Your task to perform on an android device: toggle pop-ups in chrome Image 0: 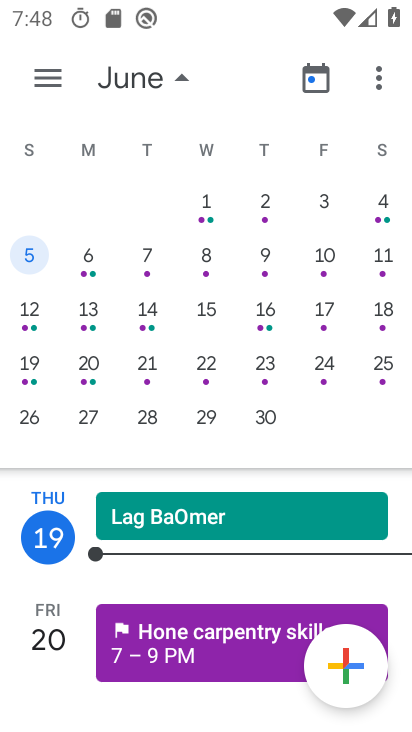
Step 0: press home button
Your task to perform on an android device: toggle pop-ups in chrome Image 1: 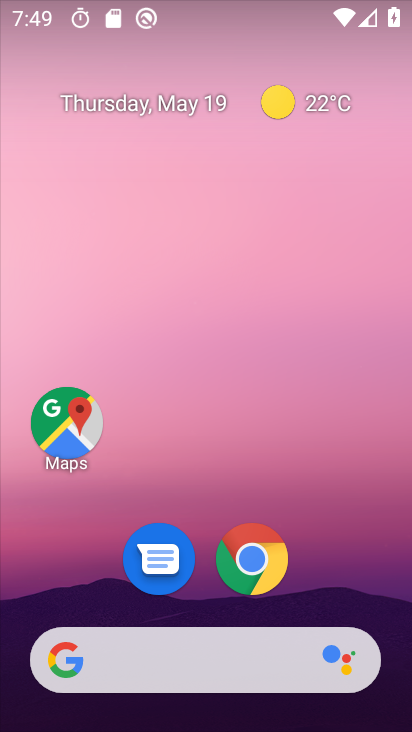
Step 1: click (244, 544)
Your task to perform on an android device: toggle pop-ups in chrome Image 2: 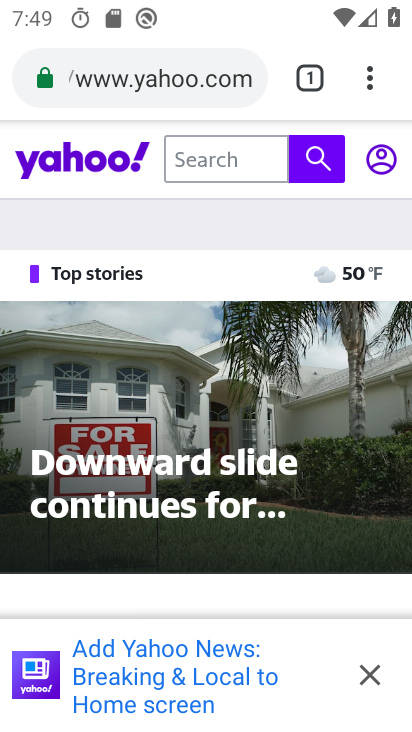
Step 2: click (367, 74)
Your task to perform on an android device: toggle pop-ups in chrome Image 3: 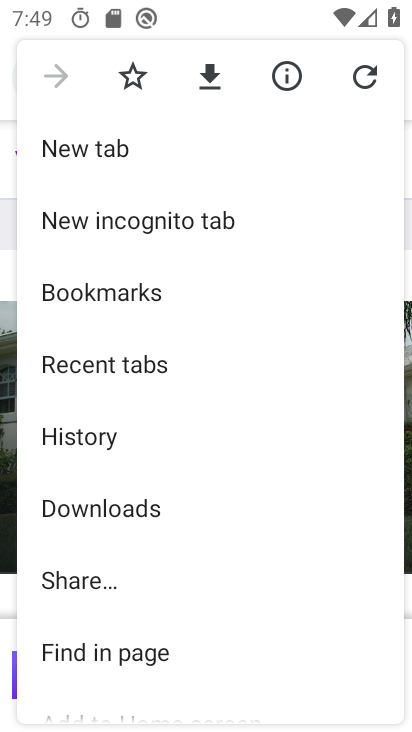
Step 3: drag from (231, 614) to (215, 243)
Your task to perform on an android device: toggle pop-ups in chrome Image 4: 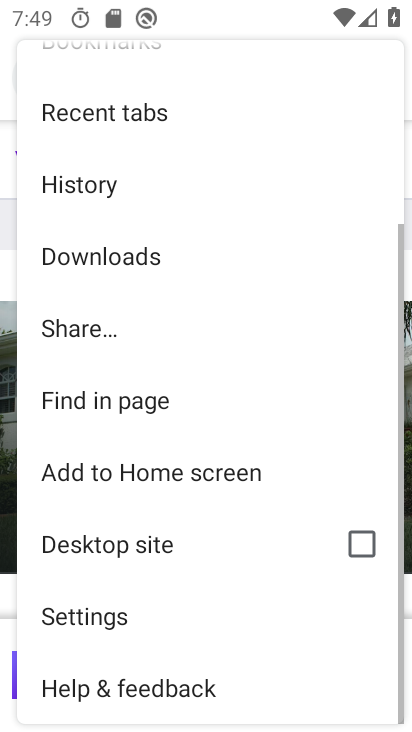
Step 4: click (107, 607)
Your task to perform on an android device: toggle pop-ups in chrome Image 5: 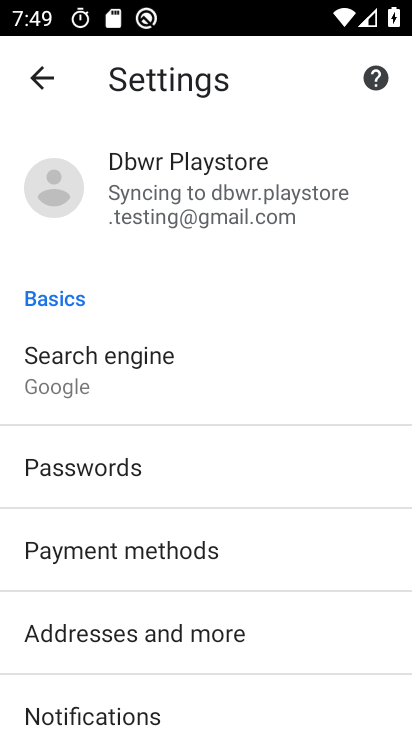
Step 5: drag from (133, 660) to (131, 166)
Your task to perform on an android device: toggle pop-ups in chrome Image 6: 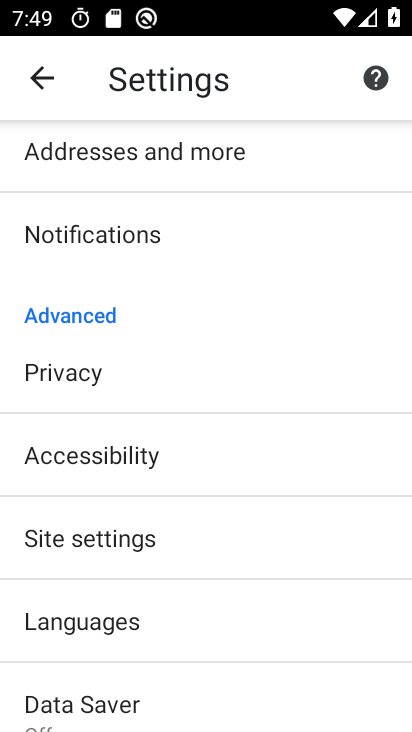
Step 6: drag from (108, 657) to (132, 346)
Your task to perform on an android device: toggle pop-ups in chrome Image 7: 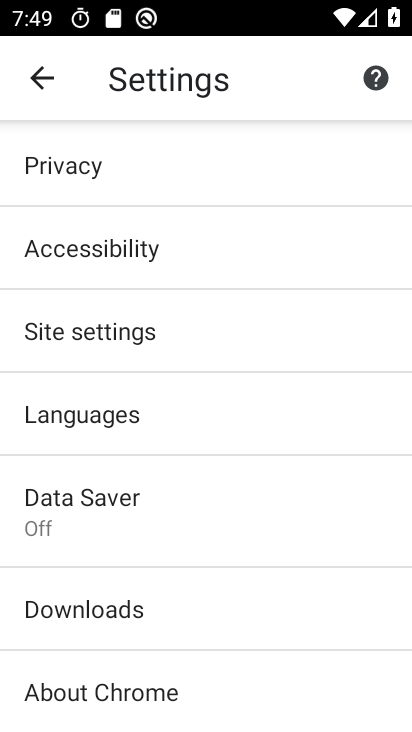
Step 7: click (126, 345)
Your task to perform on an android device: toggle pop-ups in chrome Image 8: 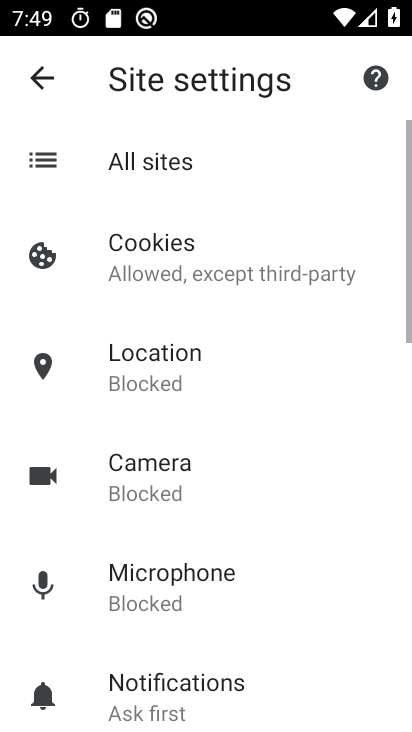
Step 8: drag from (196, 621) to (146, 180)
Your task to perform on an android device: toggle pop-ups in chrome Image 9: 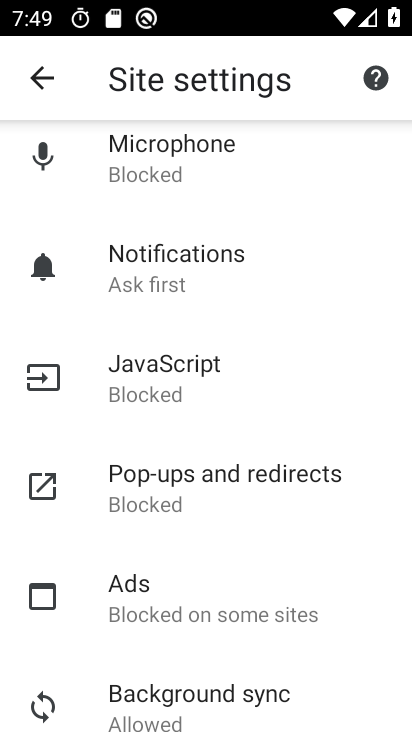
Step 9: click (219, 498)
Your task to perform on an android device: toggle pop-ups in chrome Image 10: 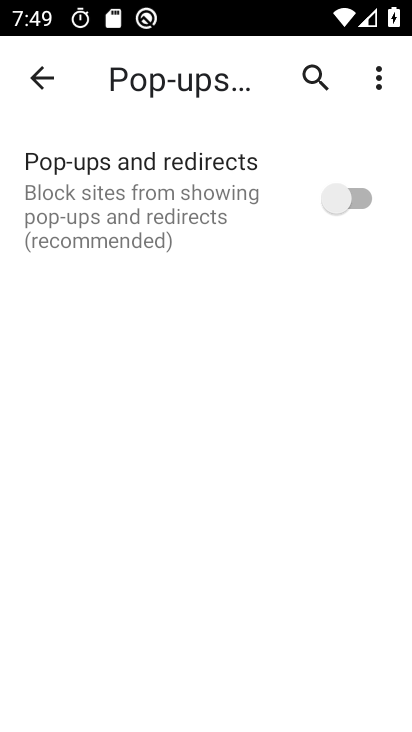
Step 10: click (342, 184)
Your task to perform on an android device: toggle pop-ups in chrome Image 11: 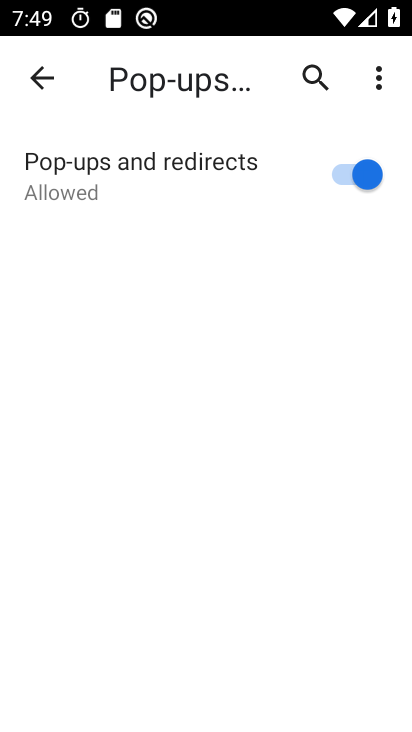
Step 11: task complete